Your task to perform on an android device: Check the weather Image 0: 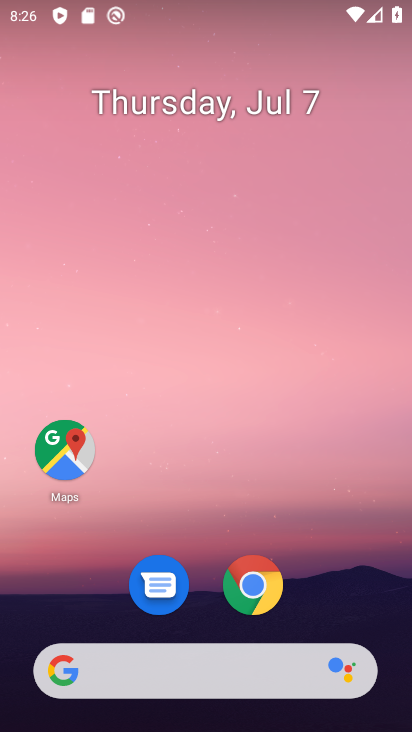
Step 0: click (213, 668)
Your task to perform on an android device: Check the weather Image 1: 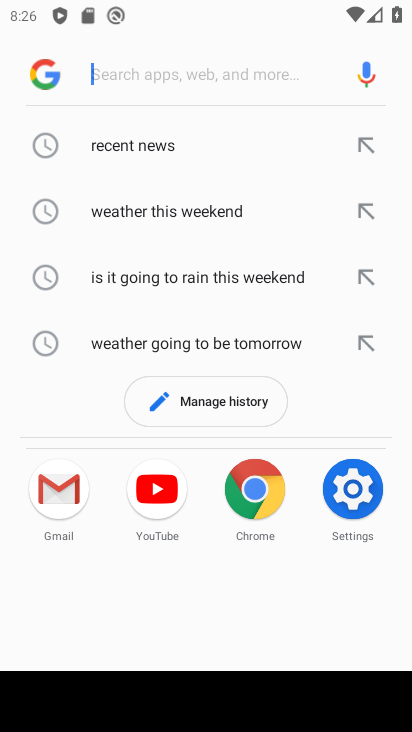
Step 1: type "Weather"
Your task to perform on an android device: Check the weather Image 2: 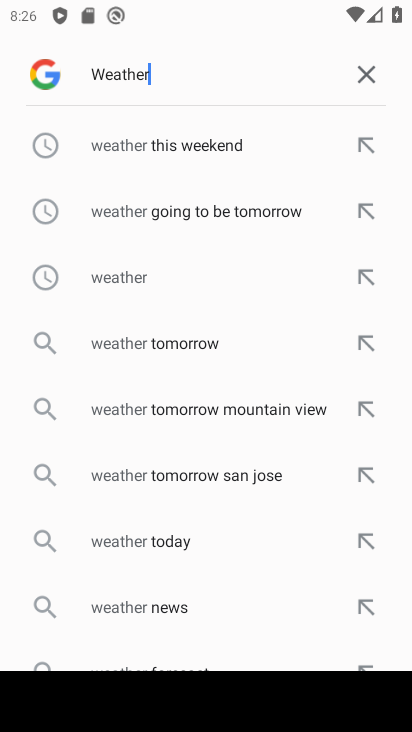
Step 2: click (44, 274)
Your task to perform on an android device: Check the weather Image 3: 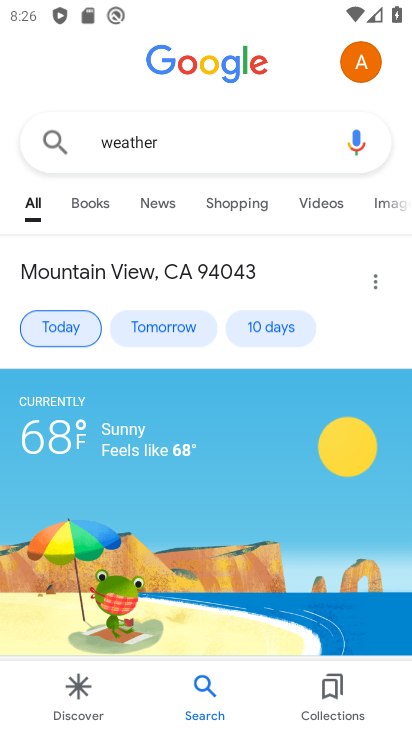
Step 3: click (85, 326)
Your task to perform on an android device: Check the weather Image 4: 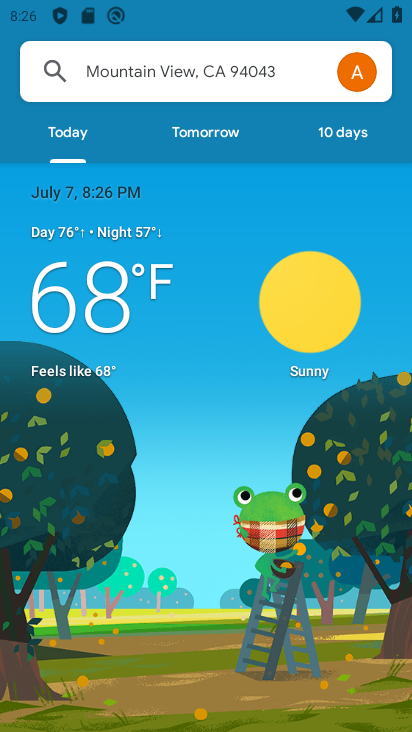
Step 4: task complete